Your task to perform on an android device: Go to accessibility settings Image 0: 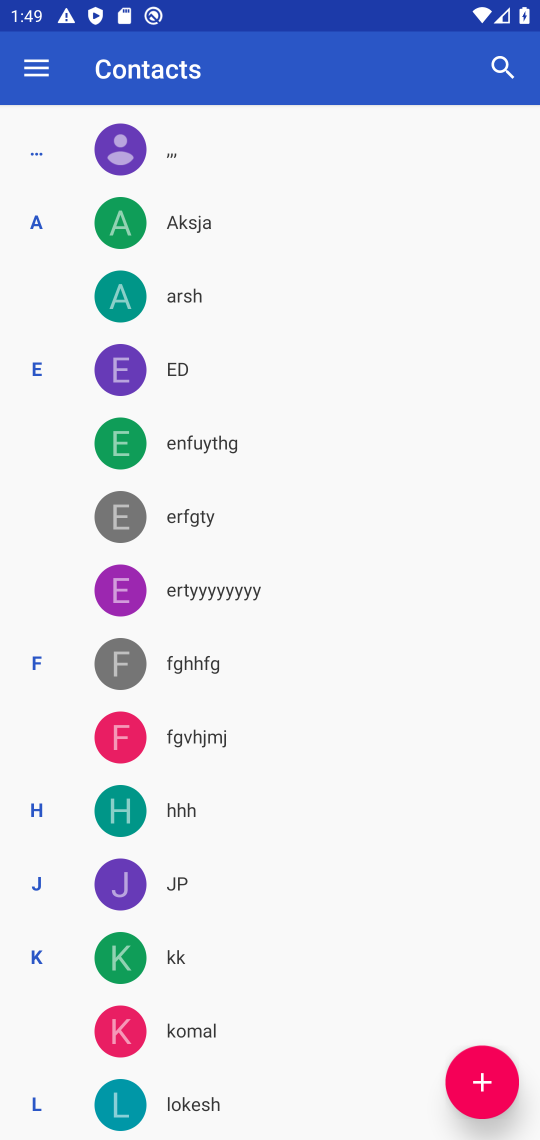
Step 0: press home button
Your task to perform on an android device: Go to accessibility settings Image 1: 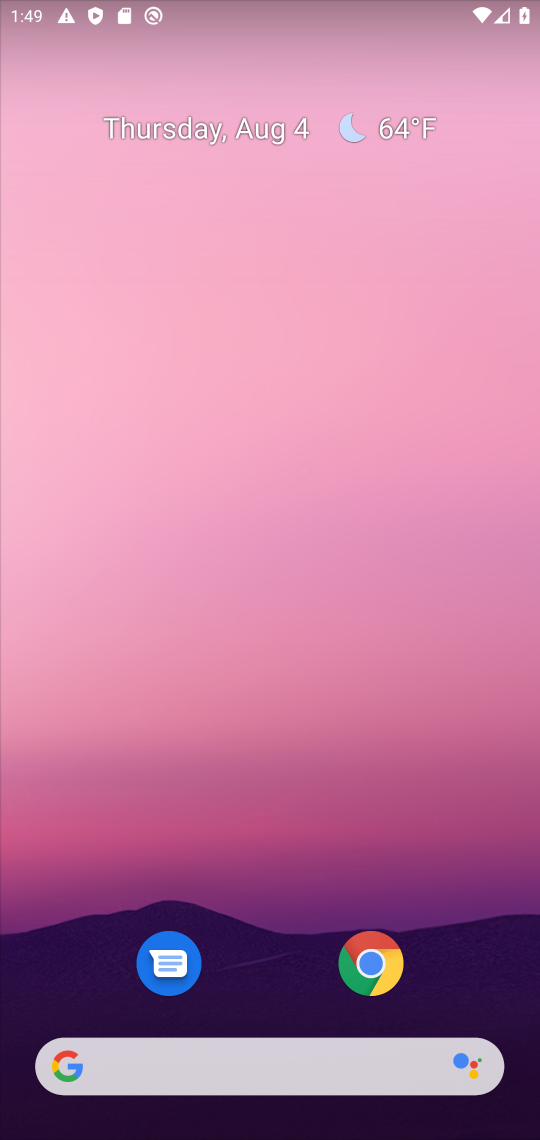
Step 1: drag from (289, 1051) to (267, 315)
Your task to perform on an android device: Go to accessibility settings Image 2: 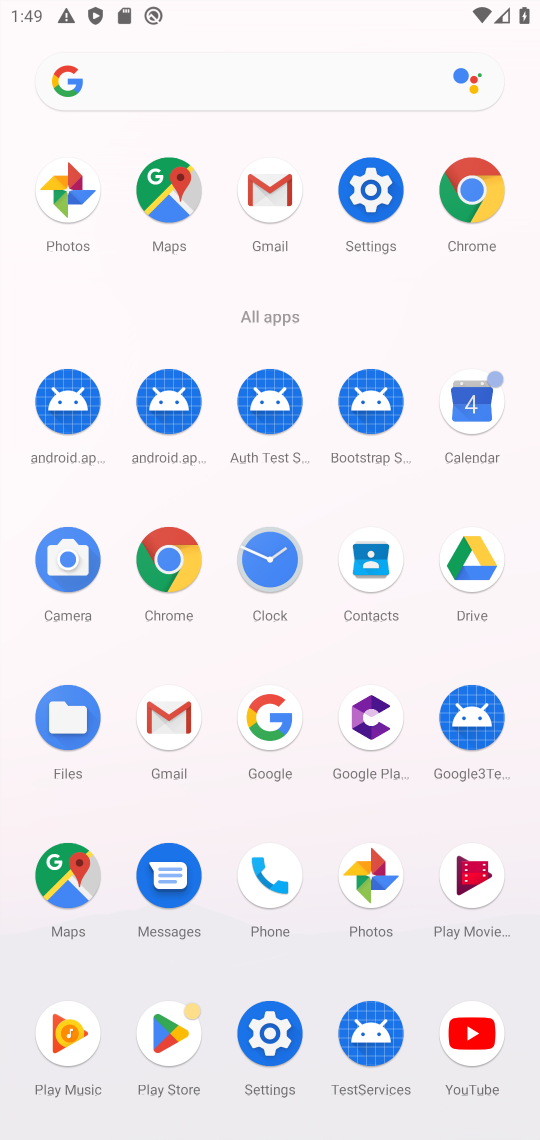
Step 2: click (266, 1038)
Your task to perform on an android device: Go to accessibility settings Image 3: 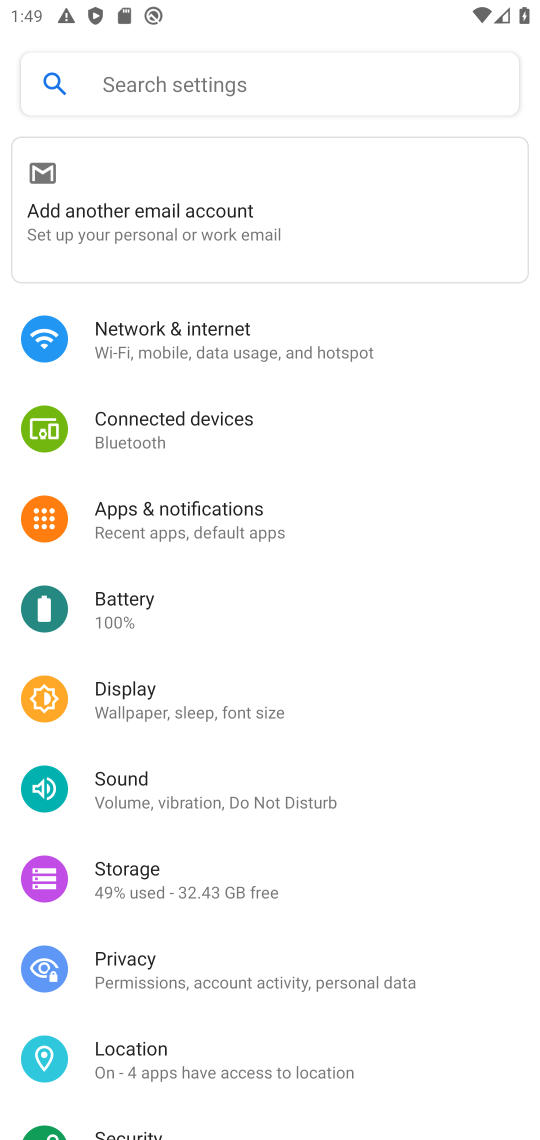
Step 3: drag from (259, 1015) to (250, 301)
Your task to perform on an android device: Go to accessibility settings Image 4: 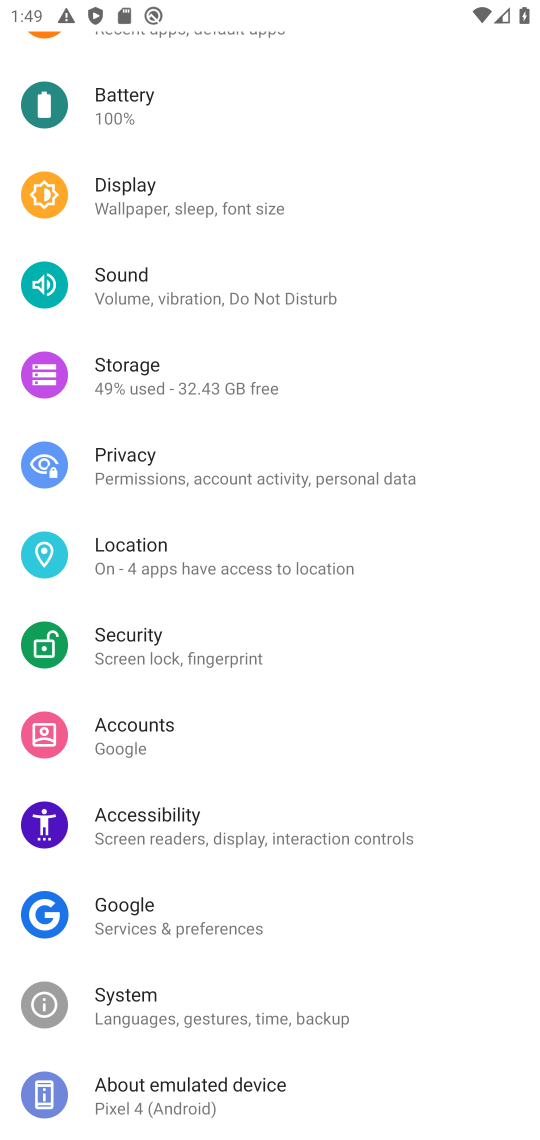
Step 4: click (145, 821)
Your task to perform on an android device: Go to accessibility settings Image 5: 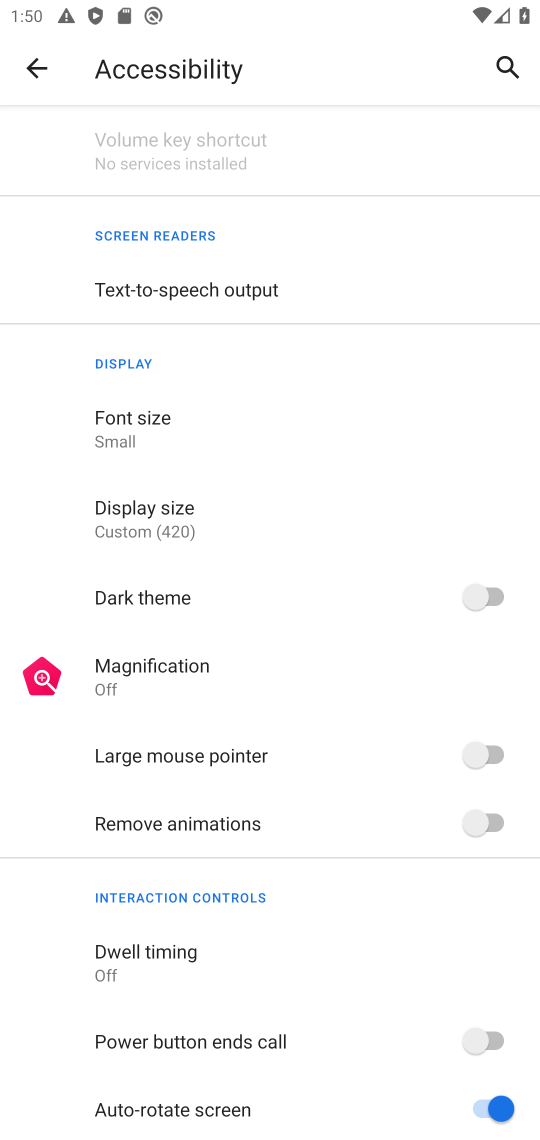
Step 5: task complete